Your task to perform on an android device: Go to battery settings Image 0: 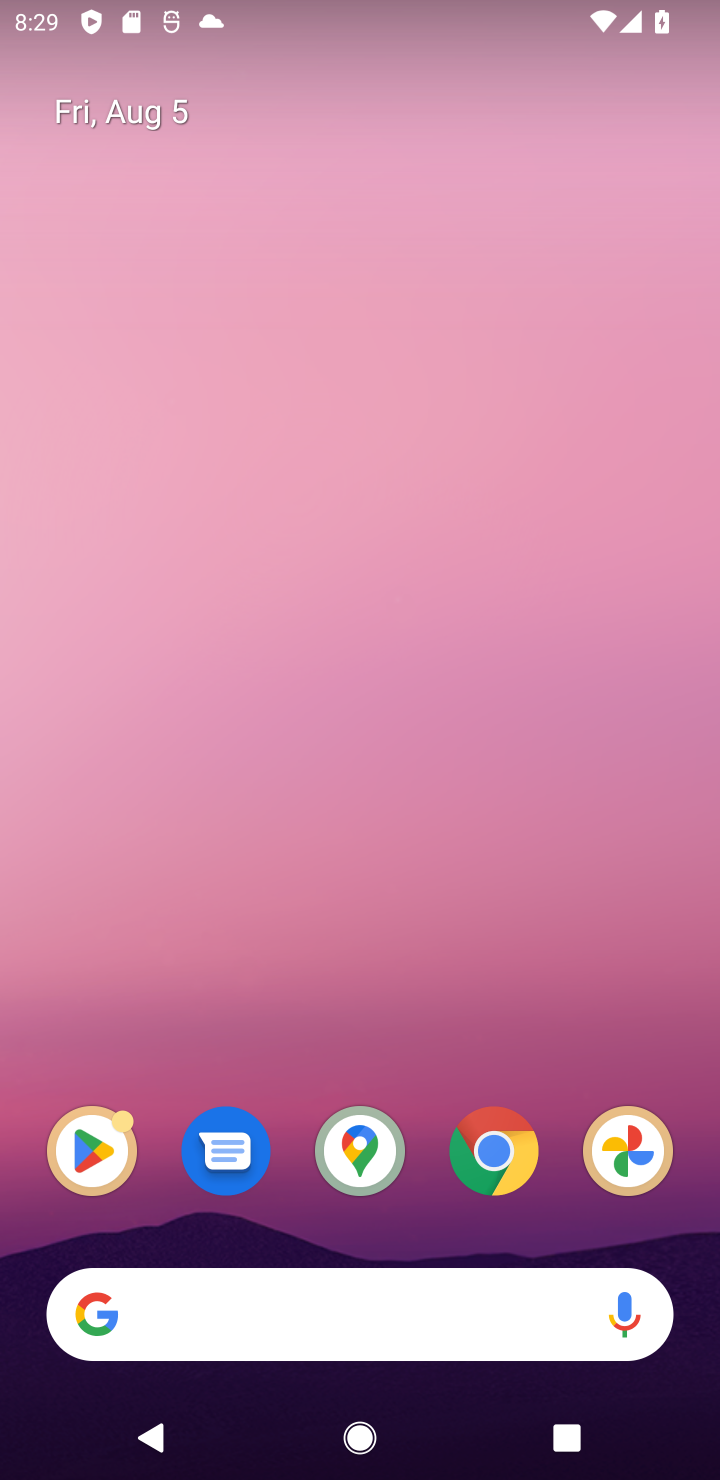
Step 0: press home button
Your task to perform on an android device: Go to battery settings Image 1: 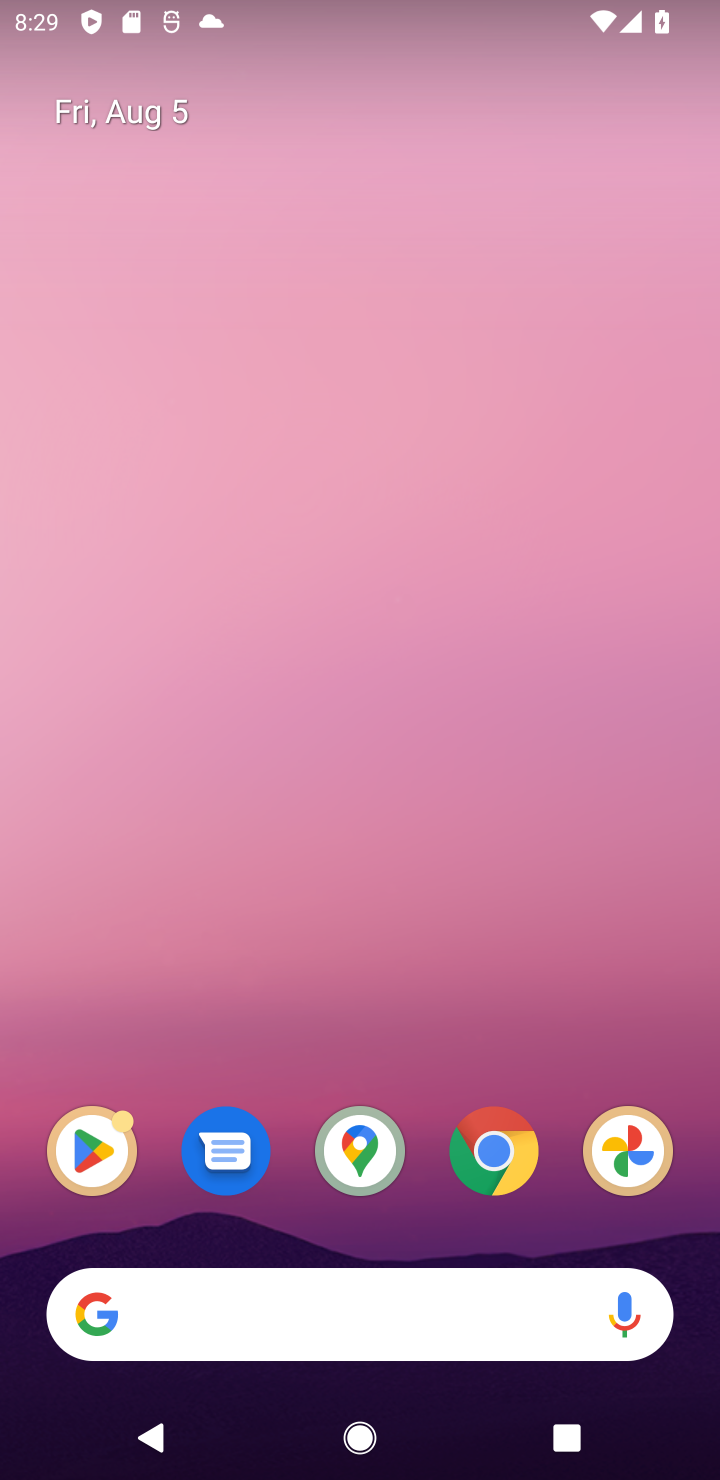
Step 1: drag from (402, 1077) to (352, 460)
Your task to perform on an android device: Go to battery settings Image 2: 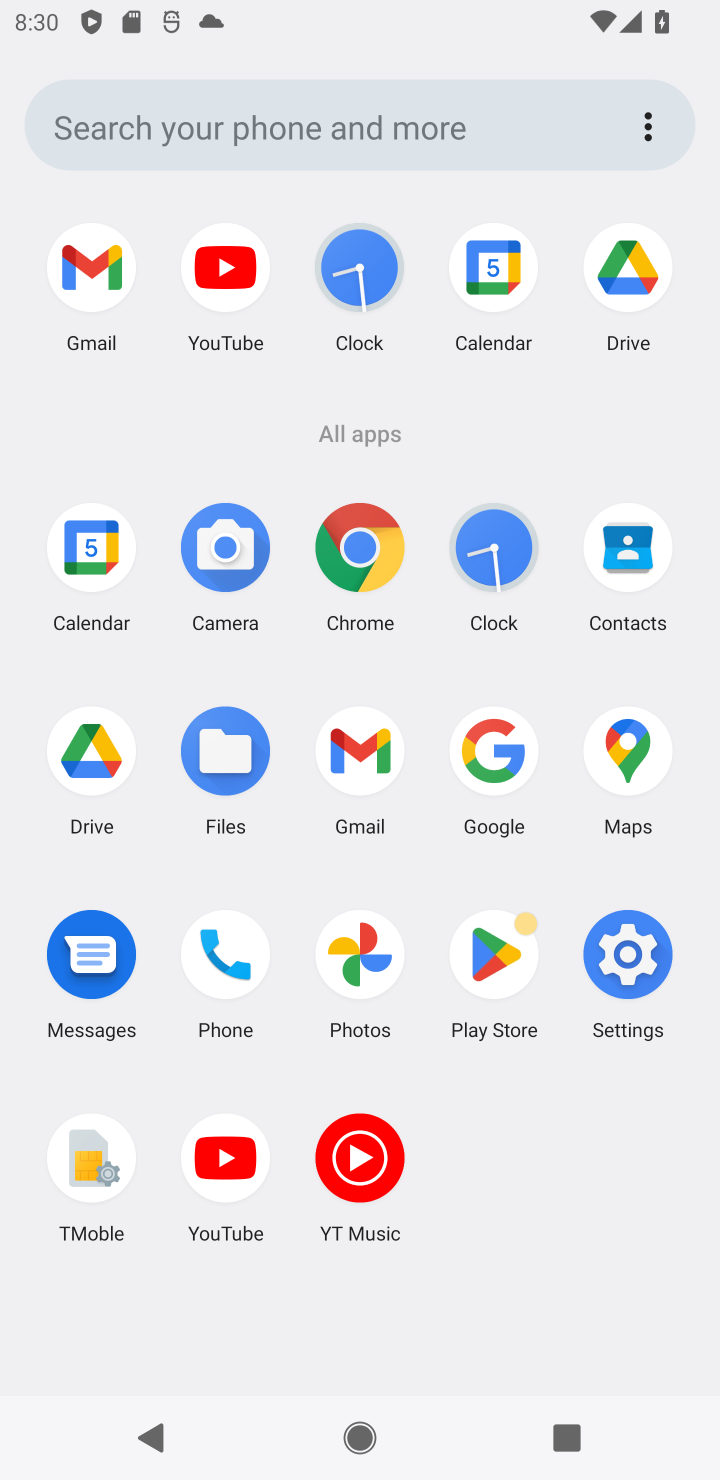
Step 2: click (619, 962)
Your task to perform on an android device: Go to battery settings Image 3: 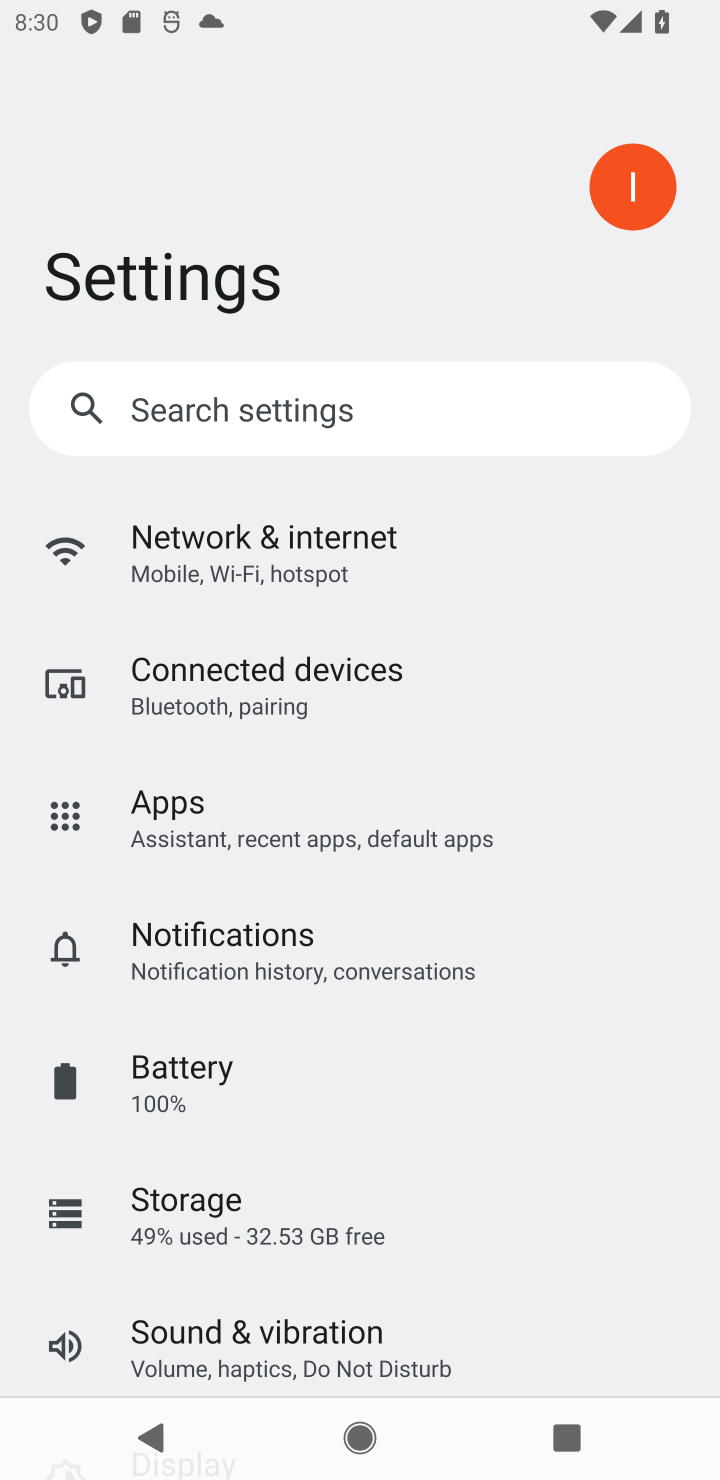
Step 3: click (151, 1090)
Your task to perform on an android device: Go to battery settings Image 4: 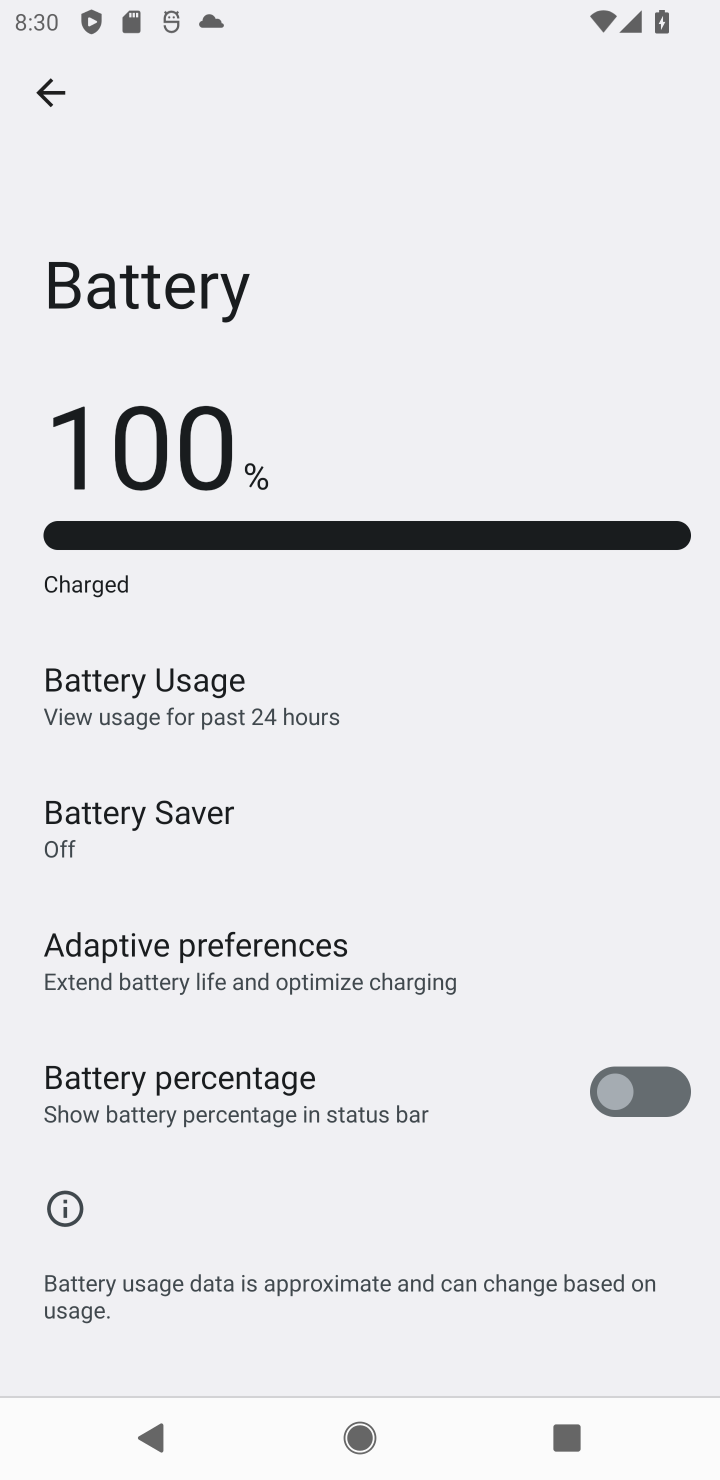
Step 4: task complete